Your task to perform on an android device: check data usage Image 0: 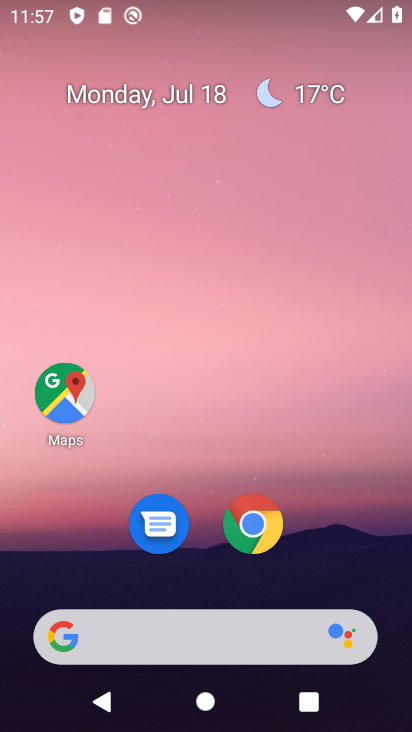
Step 0: drag from (202, 606) to (121, 28)
Your task to perform on an android device: check data usage Image 1: 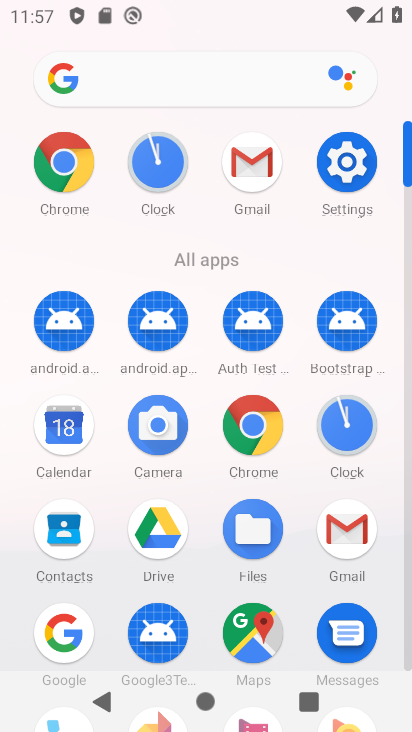
Step 1: click (355, 152)
Your task to perform on an android device: check data usage Image 2: 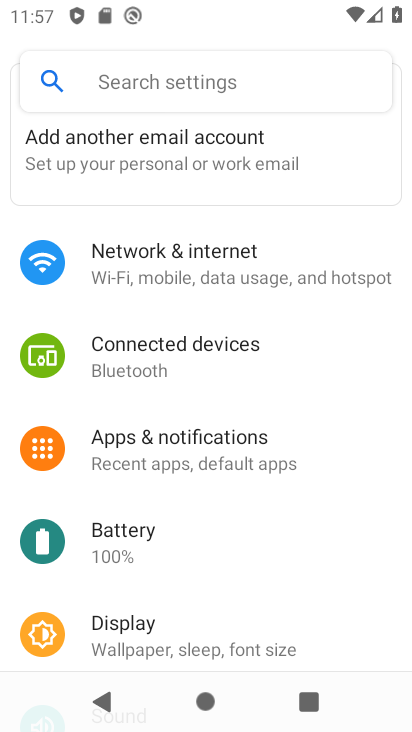
Step 2: click (207, 256)
Your task to perform on an android device: check data usage Image 3: 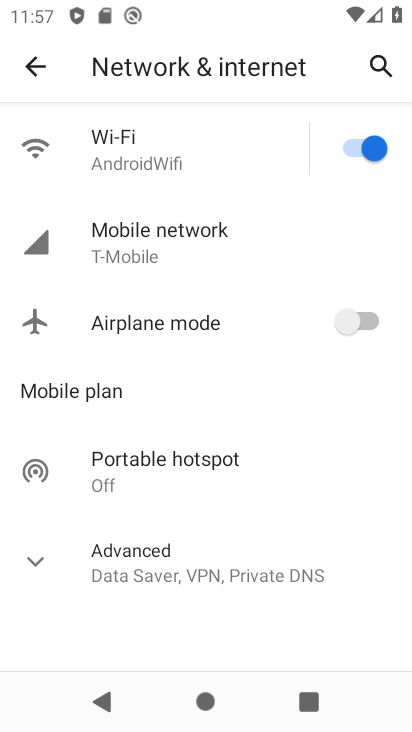
Step 3: click (206, 249)
Your task to perform on an android device: check data usage Image 4: 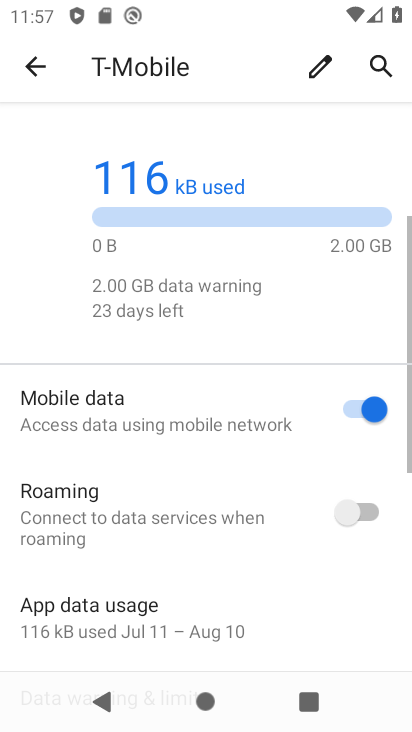
Step 4: task complete